Your task to perform on an android device: Go to display settings Image 0: 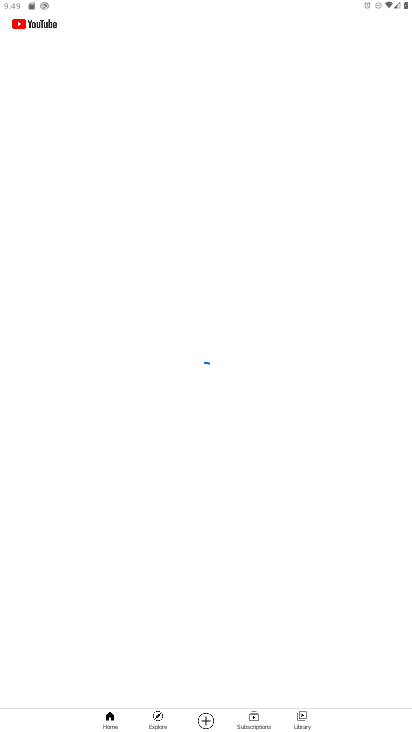
Step 0: press home button
Your task to perform on an android device: Go to display settings Image 1: 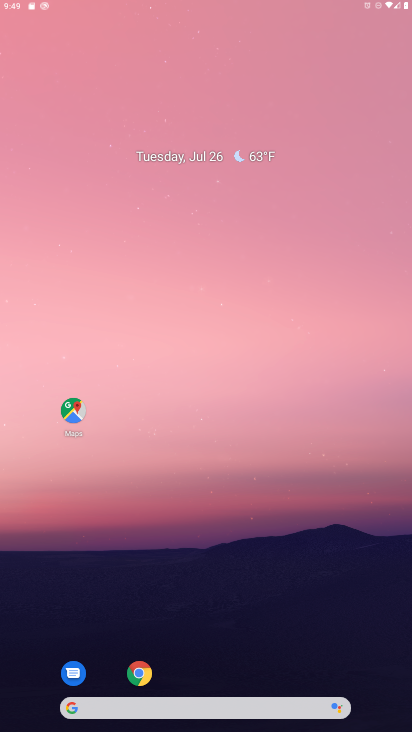
Step 1: drag from (384, 670) to (97, 66)
Your task to perform on an android device: Go to display settings Image 2: 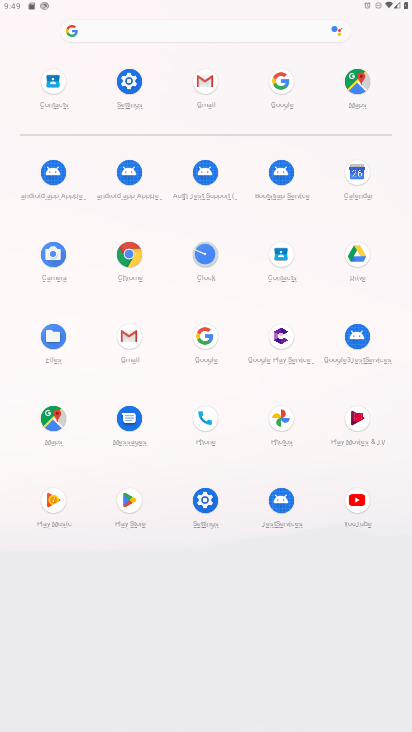
Step 2: click (194, 512)
Your task to perform on an android device: Go to display settings Image 3: 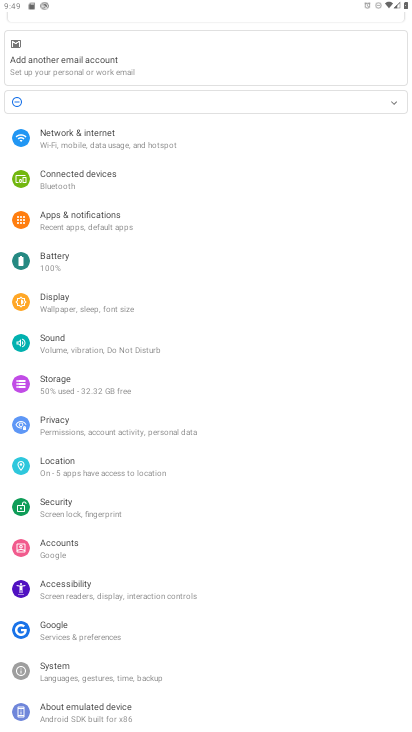
Step 3: click (59, 306)
Your task to perform on an android device: Go to display settings Image 4: 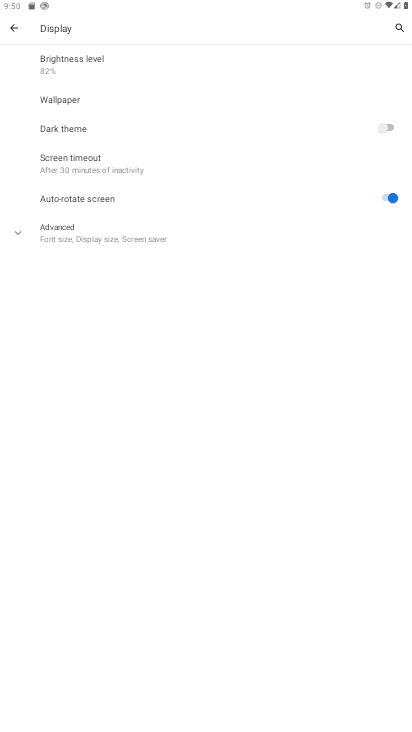
Step 4: task complete